Your task to perform on an android device: turn off picture-in-picture Image 0: 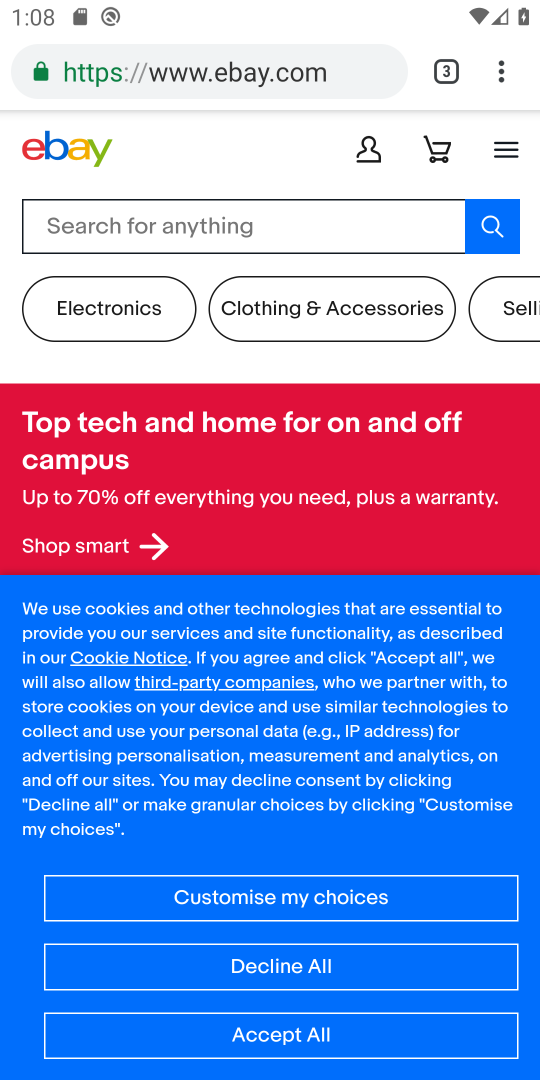
Step 0: press home button
Your task to perform on an android device: turn off picture-in-picture Image 1: 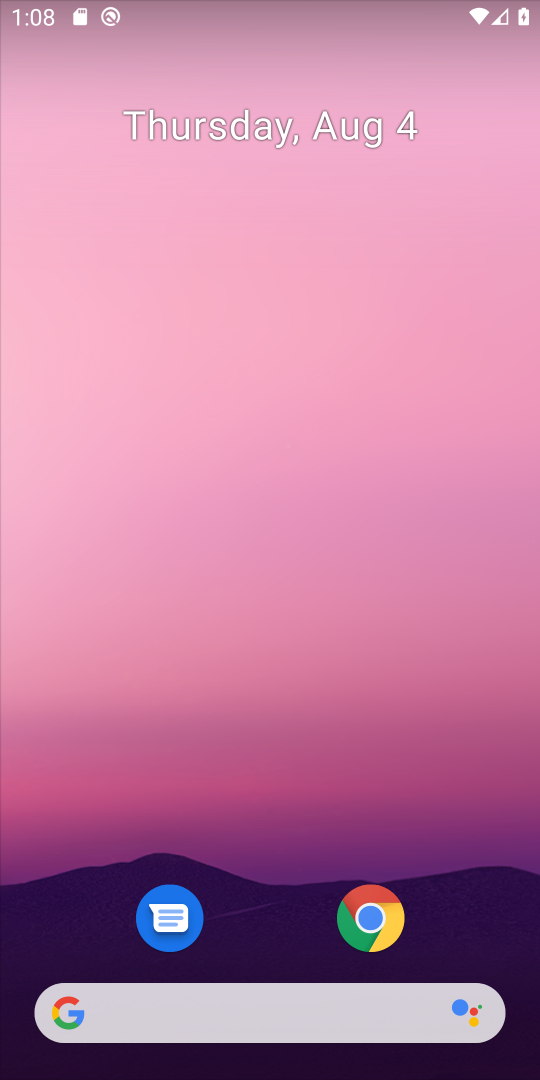
Step 1: click (364, 911)
Your task to perform on an android device: turn off picture-in-picture Image 2: 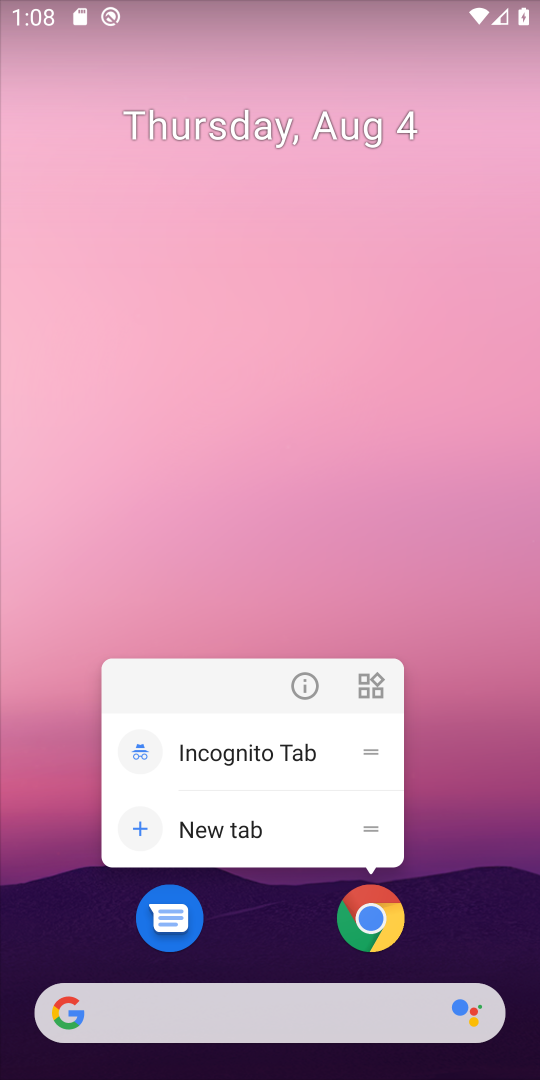
Step 2: click (304, 686)
Your task to perform on an android device: turn off picture-in-picture Image 3: 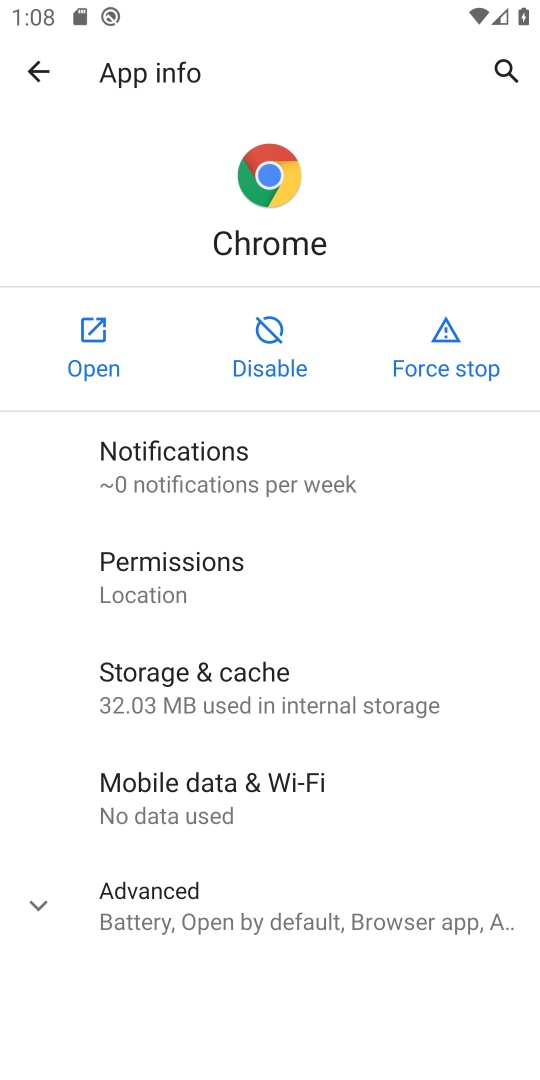
Step 3: click (202, 902)
Your task to perform on an android device: turn off picture-in-picture Image 4: 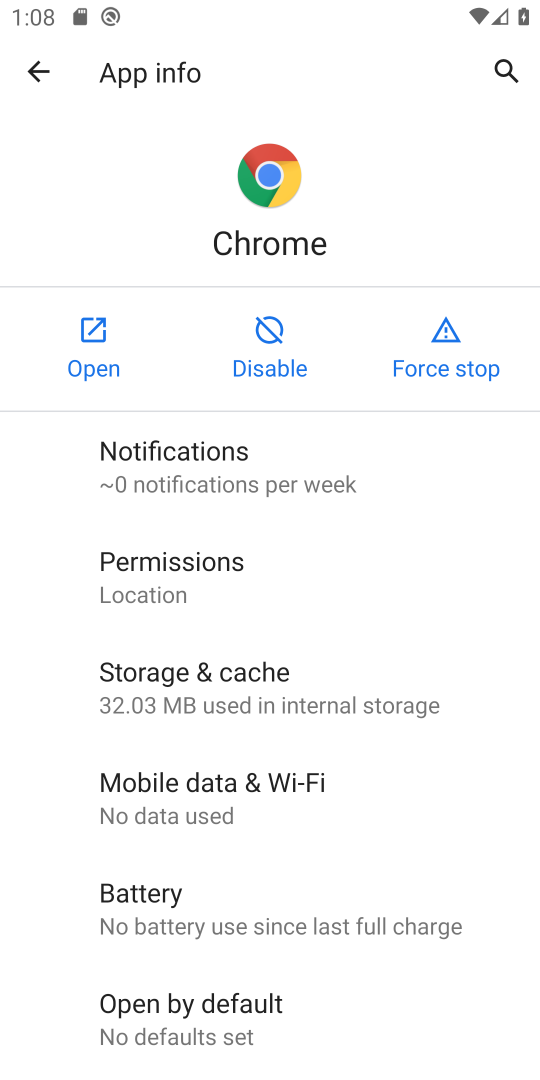
Step 4: drag from (258, 982) to (267, 562)
Your task to perform on an android device: turn off picture-in-picture Image 5: 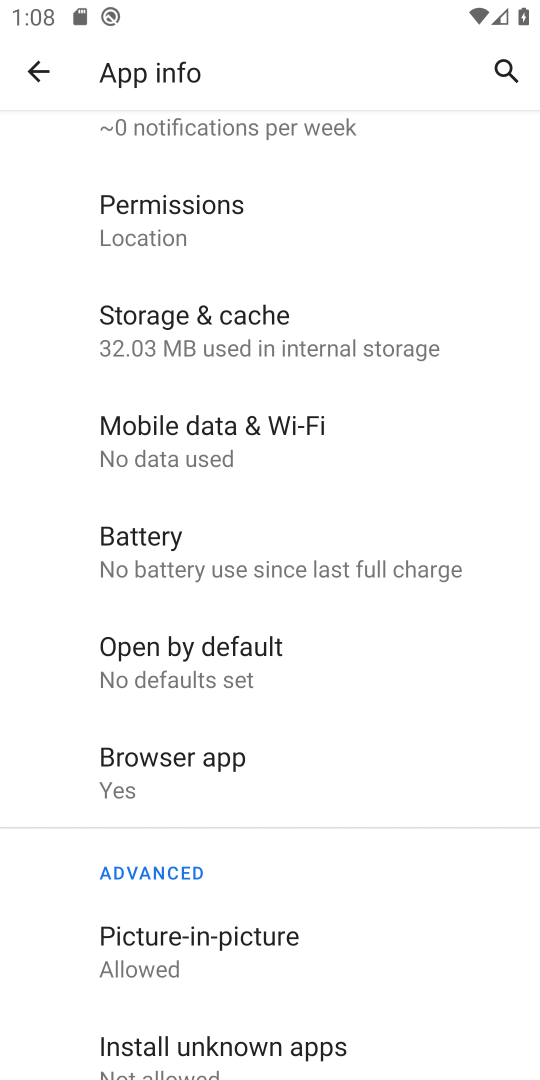
Step 5: click (193, 956)
Your task to perform on an android device: turn off picture-in-picture Image 6: 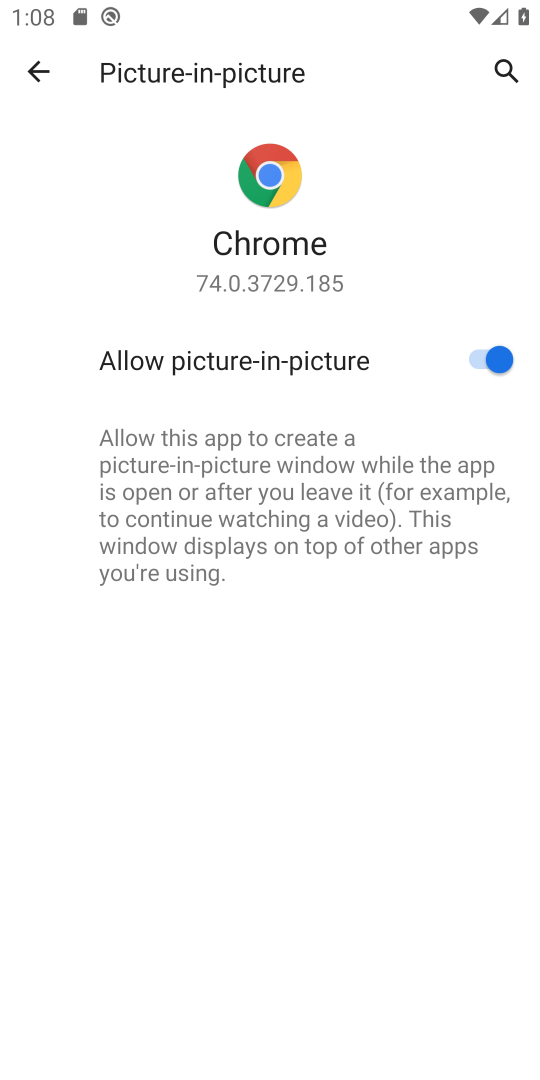
Step 6: click (499, 346)
Your task to perform on an android device: turn off picture-in-picture Image 7: 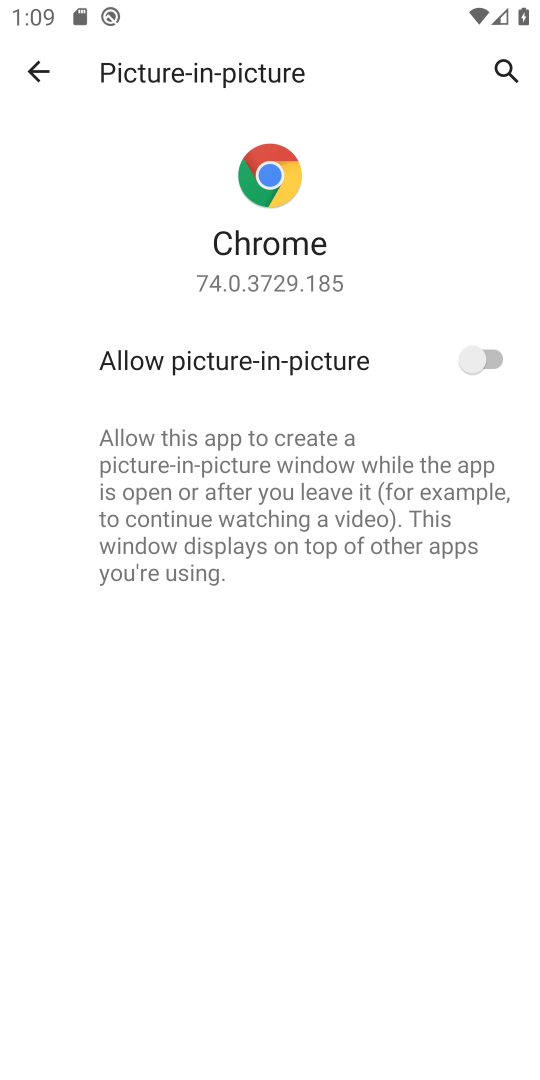
Step 7: task complete